Your task to perform on an android device: Open Reddit.com Image 0: 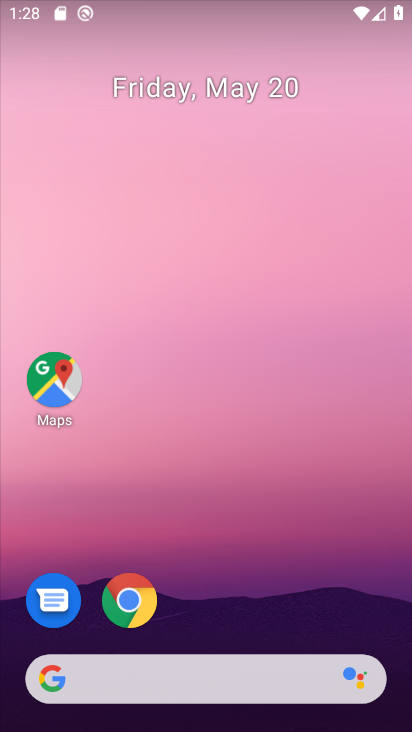
Step 0: drag from (299, 574) to (229, 719)
Your task to perform on an android device: Open Reddit.com Image 1: 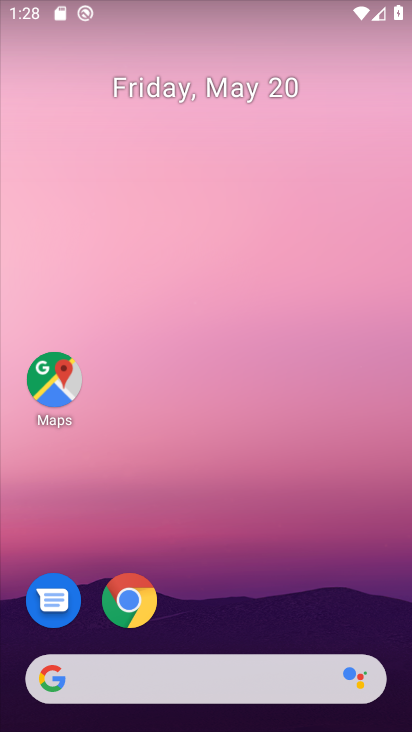
Step 1: click (130, 601)
Your task to perform on an android device: Open Reddit.com Image 2: 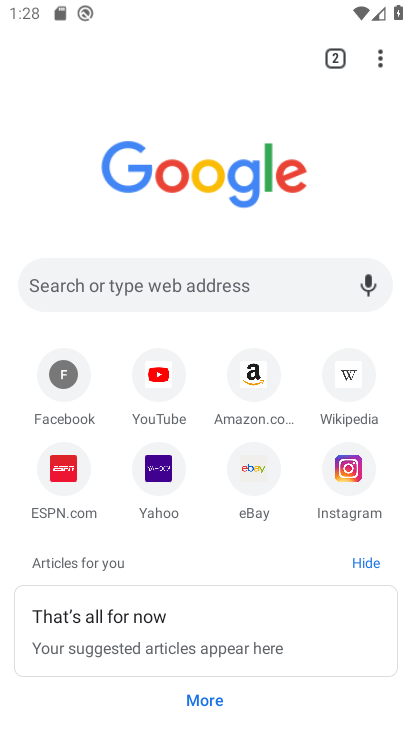
Step 2: click (212, 274)
Your task to perform on an android device: Open Reddit.com Image 3: 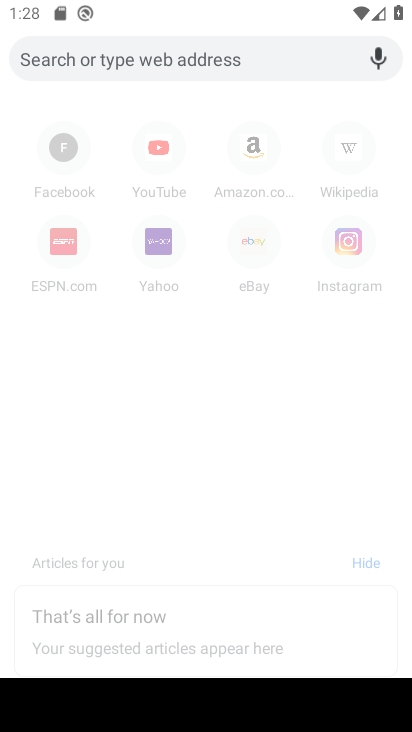
Step 3: type "Reddit.com"
Your task to perform on an android device: Open Reddit.com Image 4: 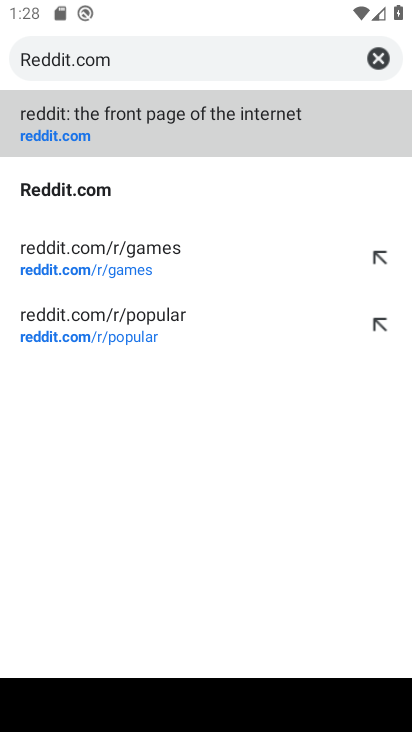
Step 4: click (106, 114)
Your task to perform on an android device: Open Reddit.com Image 5: 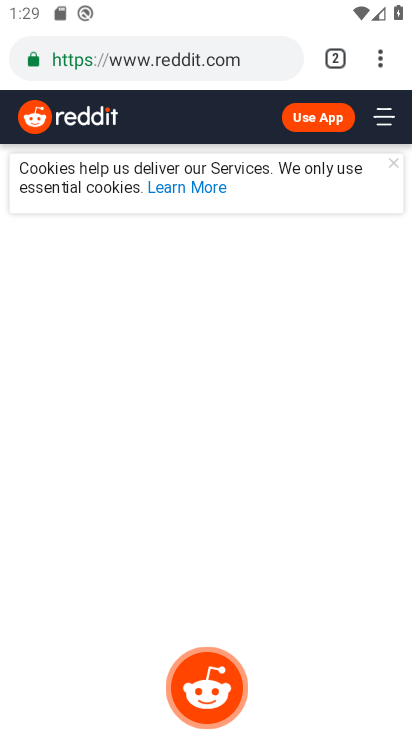
Step 5: task complete